Your task to perform on an android device: allow cookies in the chrome app Image 0: 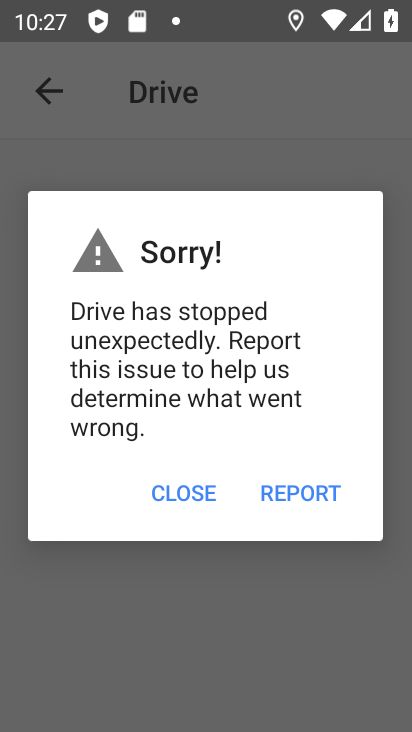
Step 0: press home button
Your task to perform on an android device: allow cookies in the chrome app Image 1: 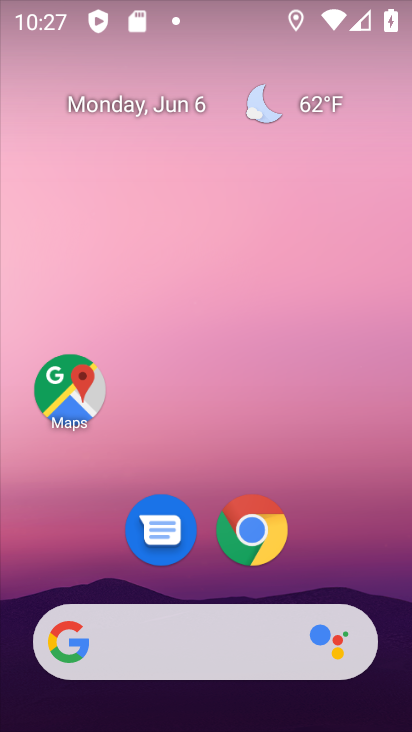
Step 1: press home button
Your task to perform on an android device: allow cookies in the chrome app Image 2: 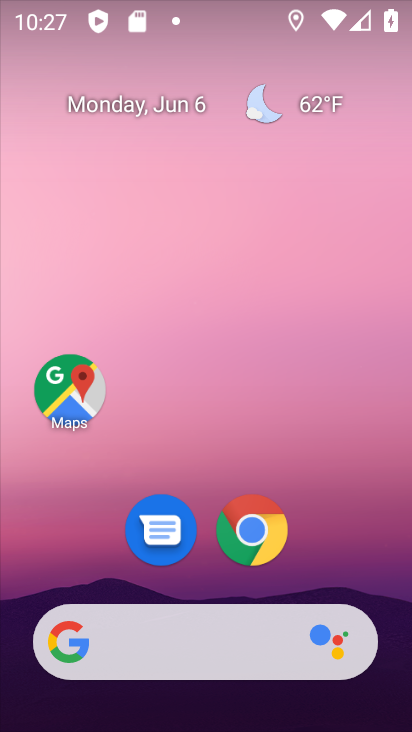
Step 2: click (251, 535)
Your task to perform on an android device: allow cookies in the chrome app Image 3: 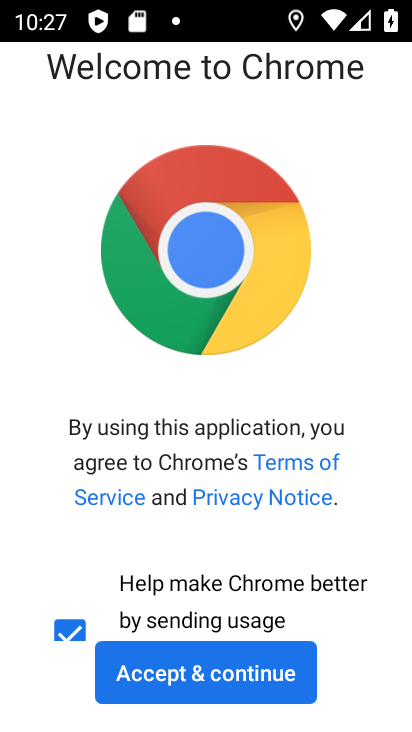
Step 3: click (204, 674)
Your task to perform on an android device: allow cookies in the chrome app Image 4: 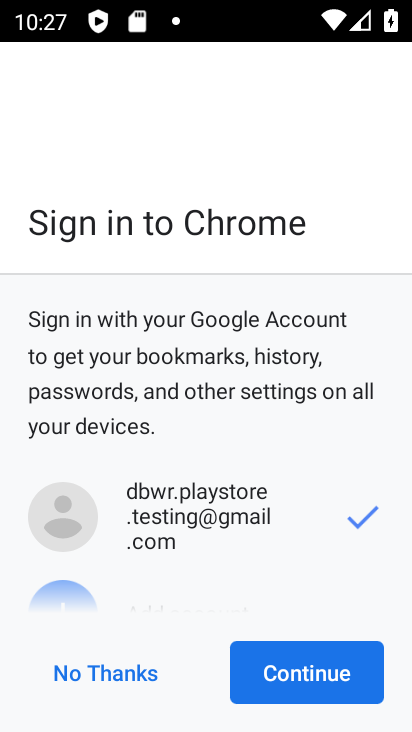
Step 4: click (283, 677)
Your task to perform on an android device: allow cookies in the chrome app Image 5: 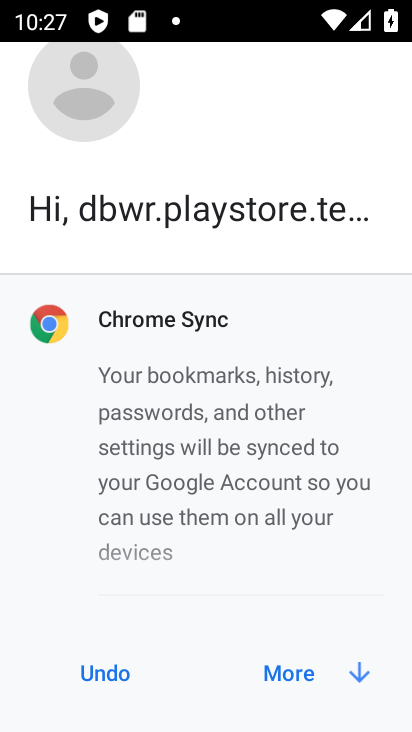
Step 5: click (283, 677)
Your task to perform on an android device: allow cookies in the chrome app Image 6: 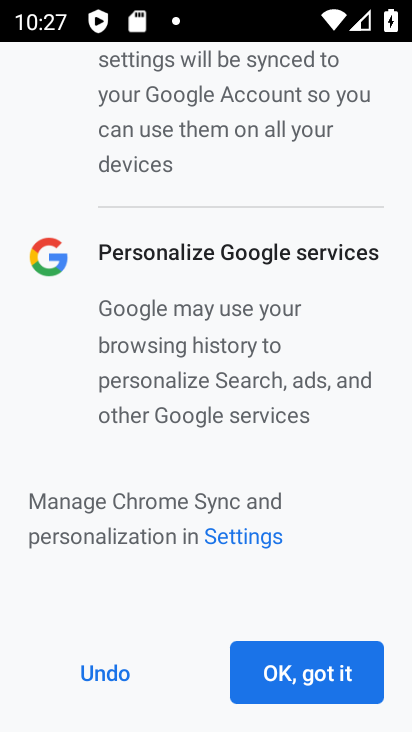
Step 6: click (283, 677)
Your task to perform on an android device: allow cookies in the chrome app Image 7: 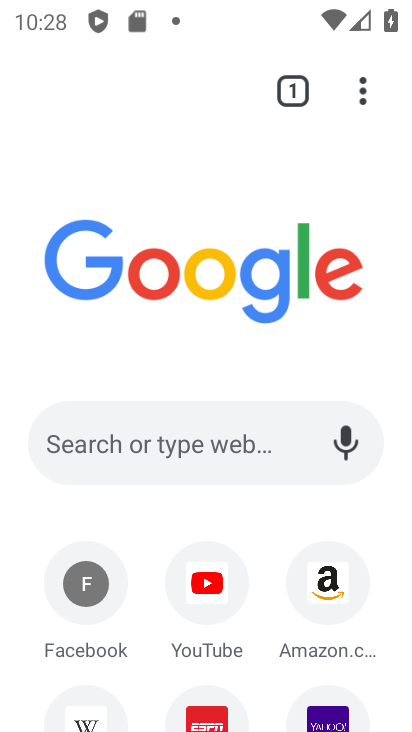
Step 7: click (355, 89)
Your task to perform on an android device: allow cookies in the chrome app Image 8: 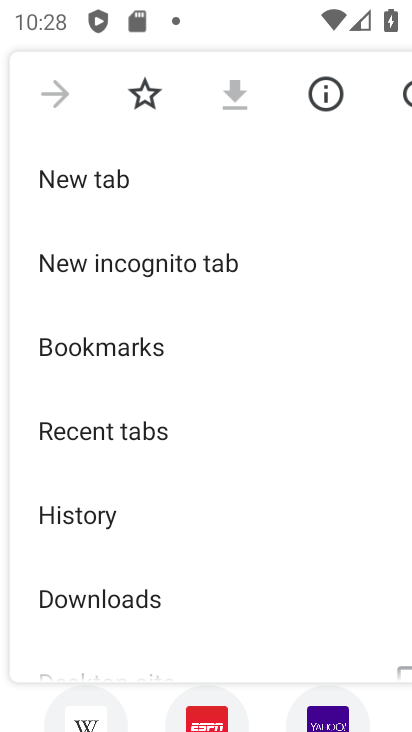
Step 8: drag from (207, 467) to (224, 68)
Your task to perform on an android device: allow cookies in the chrome app Image 9: 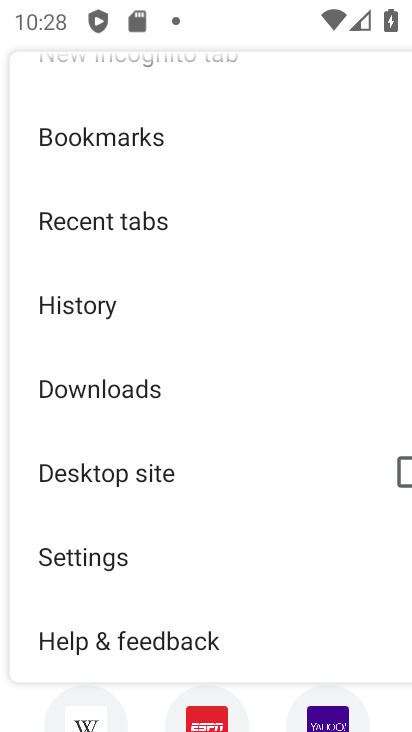
Step 9: click (133, 560)
Your task to perform on an android device: allow cookies in the chrome app Image 10: 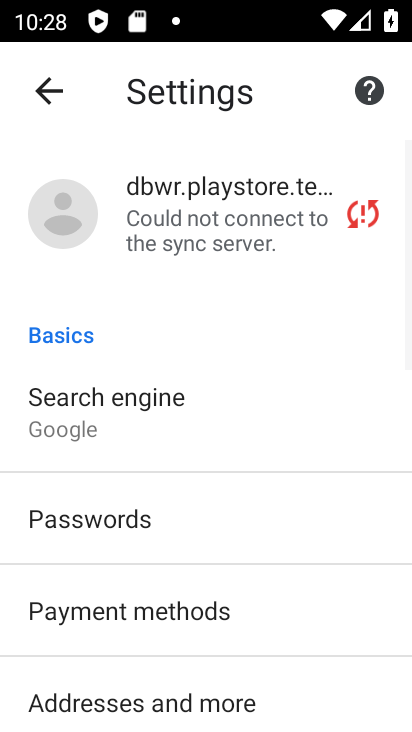
Step 10: drag from (244, 451) to (251, 44)
Your task to perform on an android device: allow cookies in the chrome app Image 11: 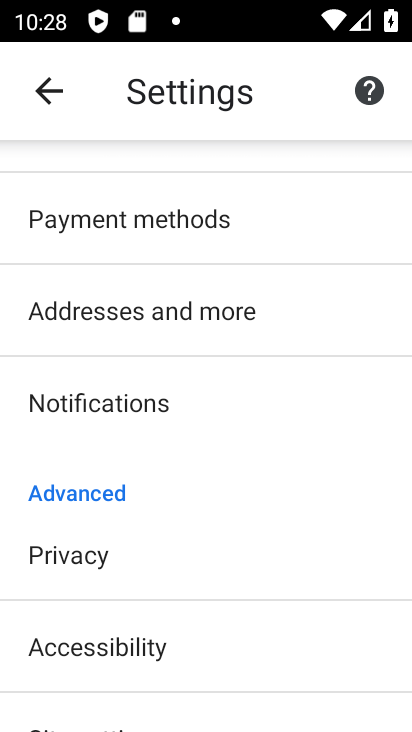
Step 11: drag from (270, 588) to (236, 263)
Your task to perform on an android device: allow cookies in the chrome app Image 12: 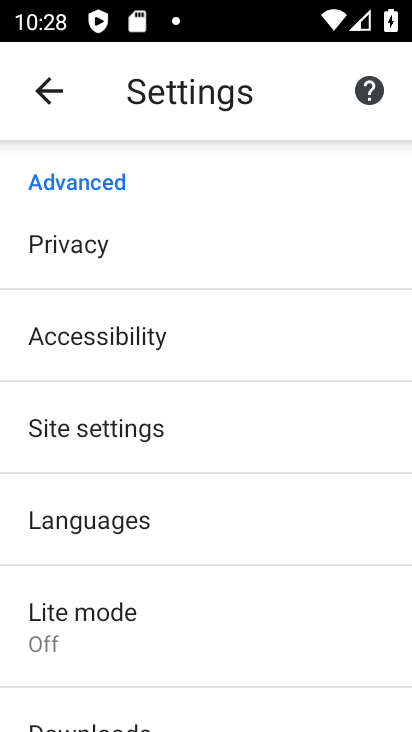
Step 12: click (148, 413)
Your task to perform on an android device: allow cookies in the chrome app Image 13: 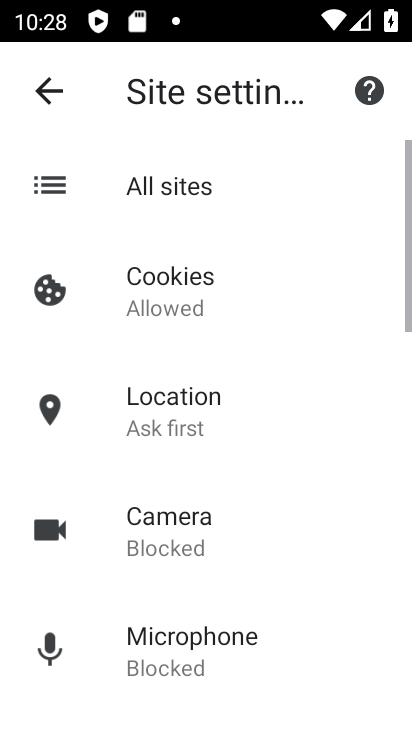
Step 13: click (188, 289)
Your task to perform on an android device: allow cookies in the chrome app Image 14: 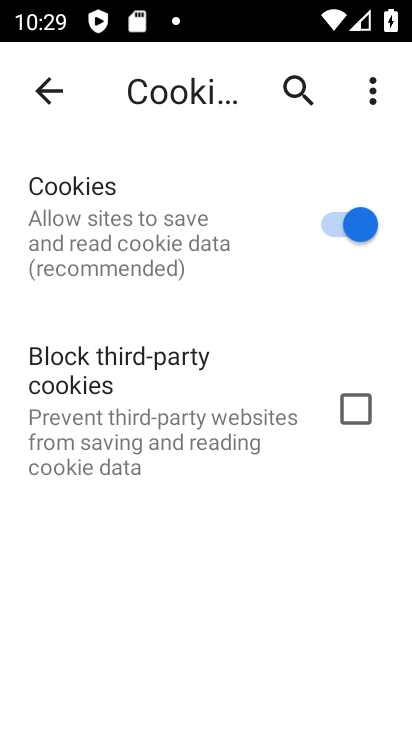
Step 14: task complete